Your task to perform on an android device: Search for "sony triple a" on costco.com, select the first entry, add it to the cart, then select checkout. Image 0: 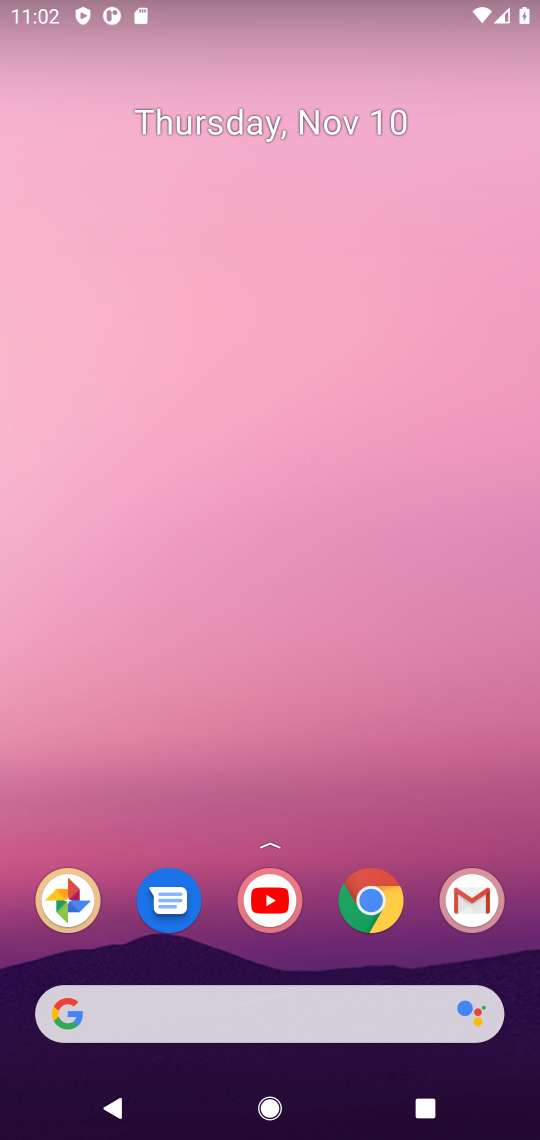
Step 0: click (375, 895)
Your task to perform on an android device: Search for "sony triple a" on costco.com, select the first entry, add it to the cart, then select checkout. Image 1: 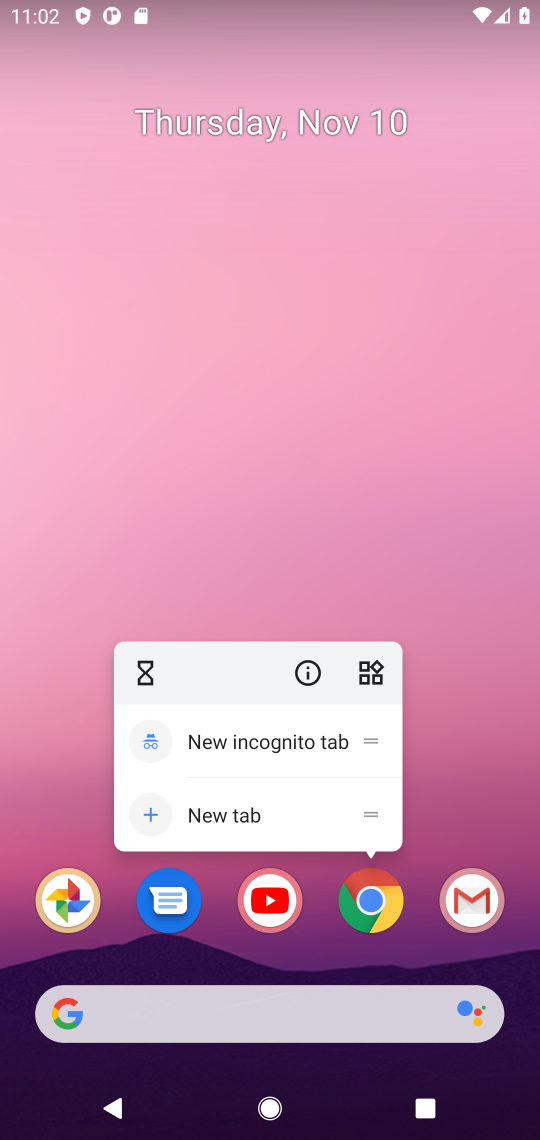
Step 1: click (368, 907)
Your task to perform on an android device: Search for "sony triple a" on costco.com, select the first entry, add it to the cart, then select checkout. Image 2: 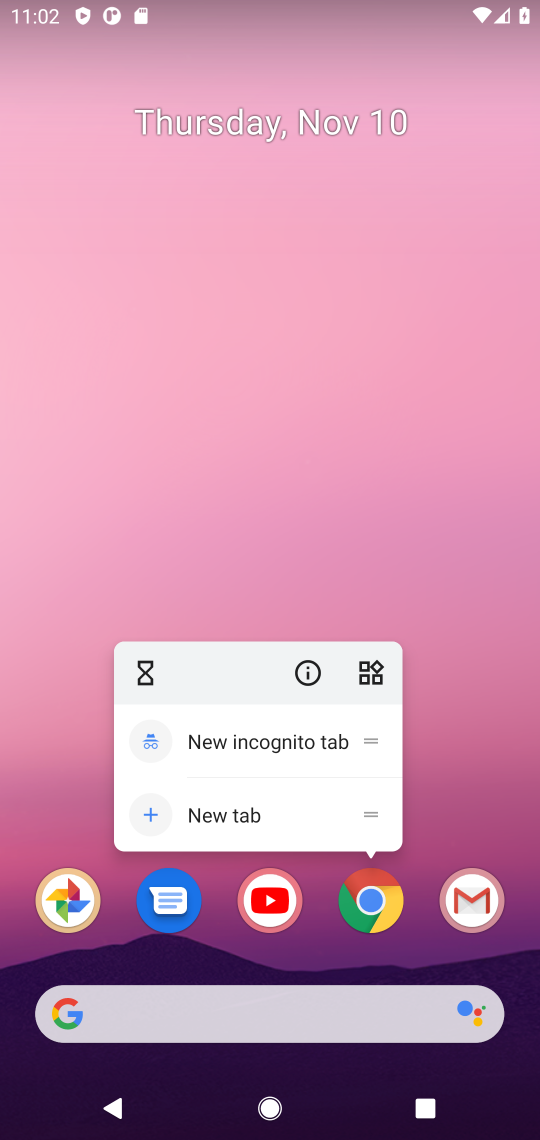
Step 2: click (368, 908)
Your task to perform on an android device: Search for "sony triple a" on costco.com, select the first entry, add it to the cart, then select checkout. Image 3: 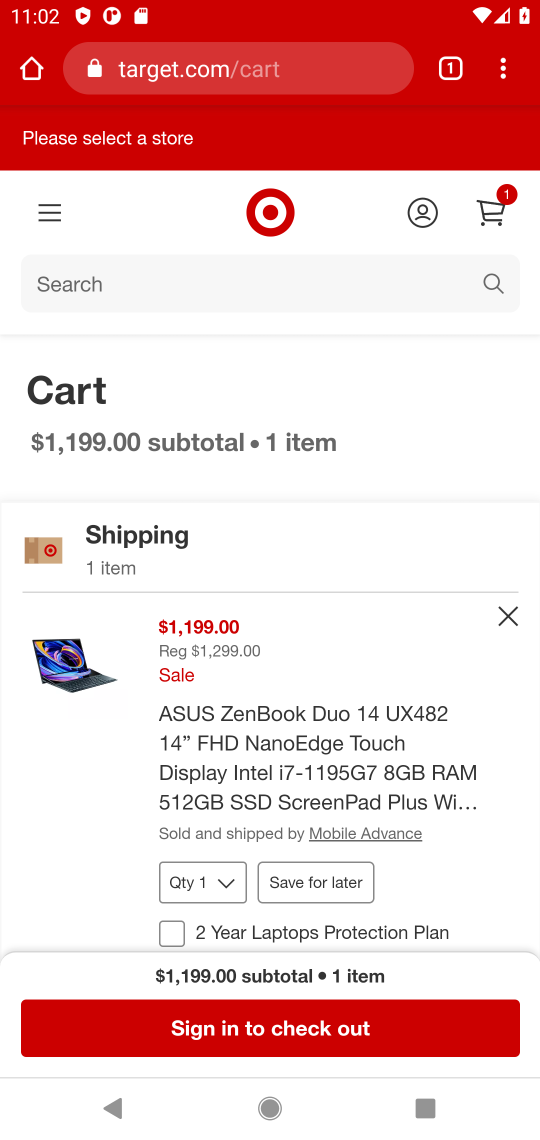
Step 3: click (273, 74)
Your task to perform on an android device: Search for "sony triple a" on costco.com, select the first entry, add it to the cart, then select checkout. Image 4: 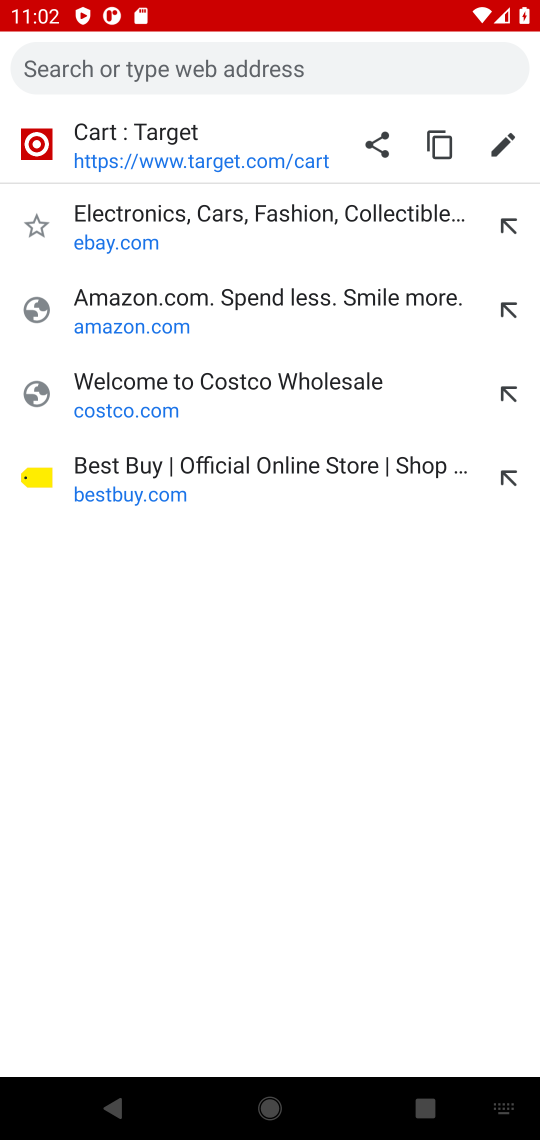
Step 4: click (120, 410)
Your task to perform on an android device: Search for "sony triple a" on costco.com, select the first entry, add it to the cart, then select checkout. Image 5: 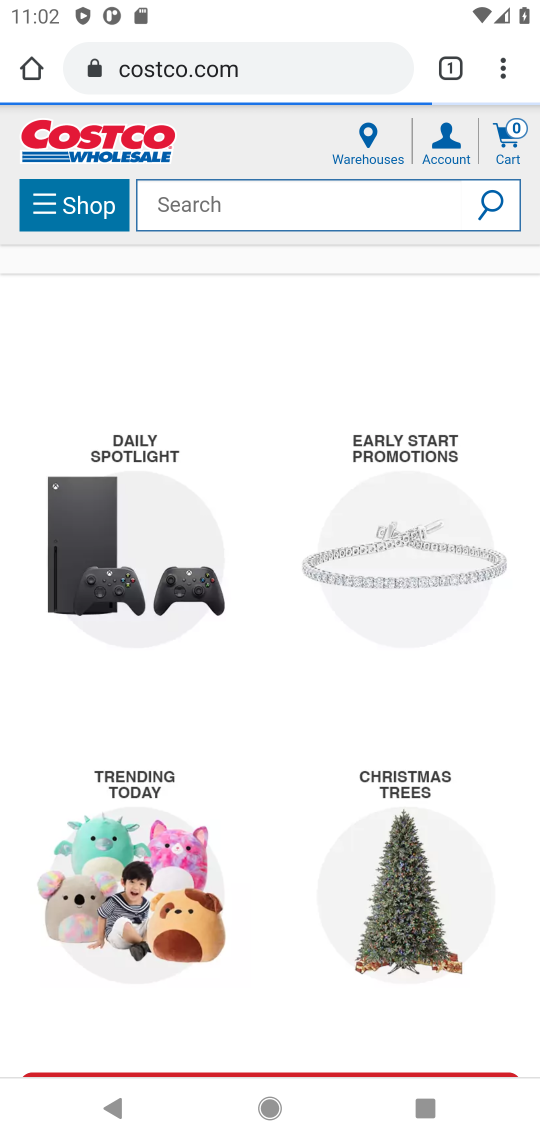
Step 5: click (188, 207)
Your task to perform on an android device: Search for "sony triple a" on costco.com, select the first entry, add it to the cart, then select checkout. Image 6: 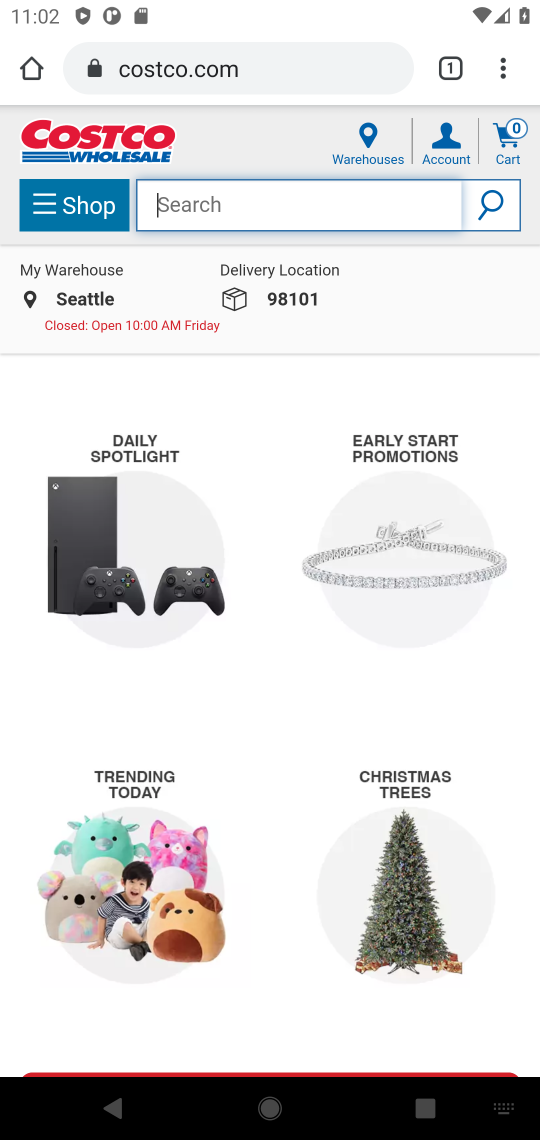
Step 6: type "sony triple a"
Your task to perform on an android device: Search for "sony triple a" on costco.com, select the first entry, add it to the cart, then select checkout. Image 7: 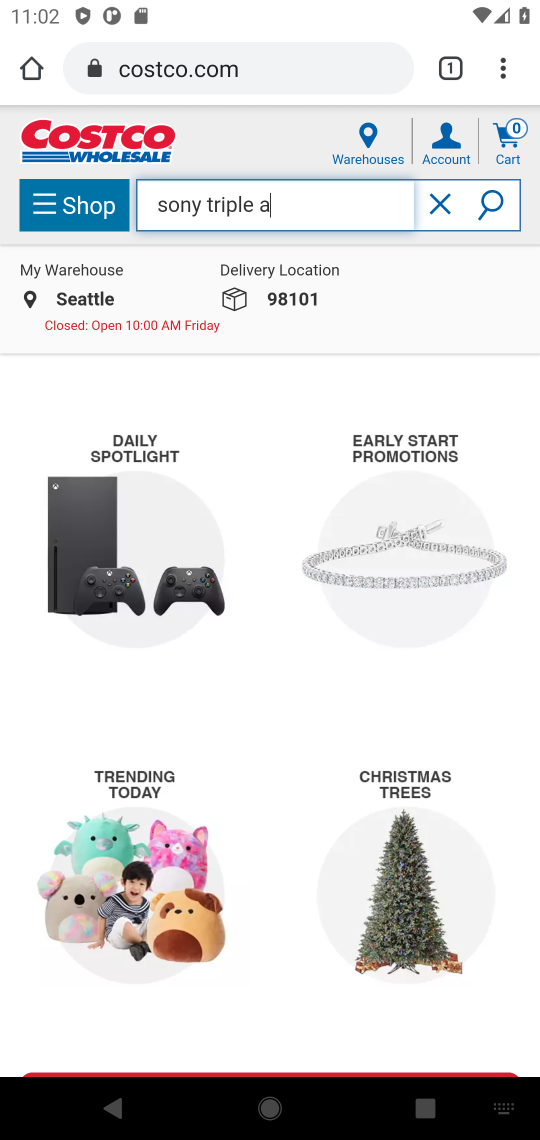
Step 7: press enter
Your task to perform on an android device: Search for "sony triple a" on costco.com, select the first entry, add it to the cart, then select checkout. Image 8: 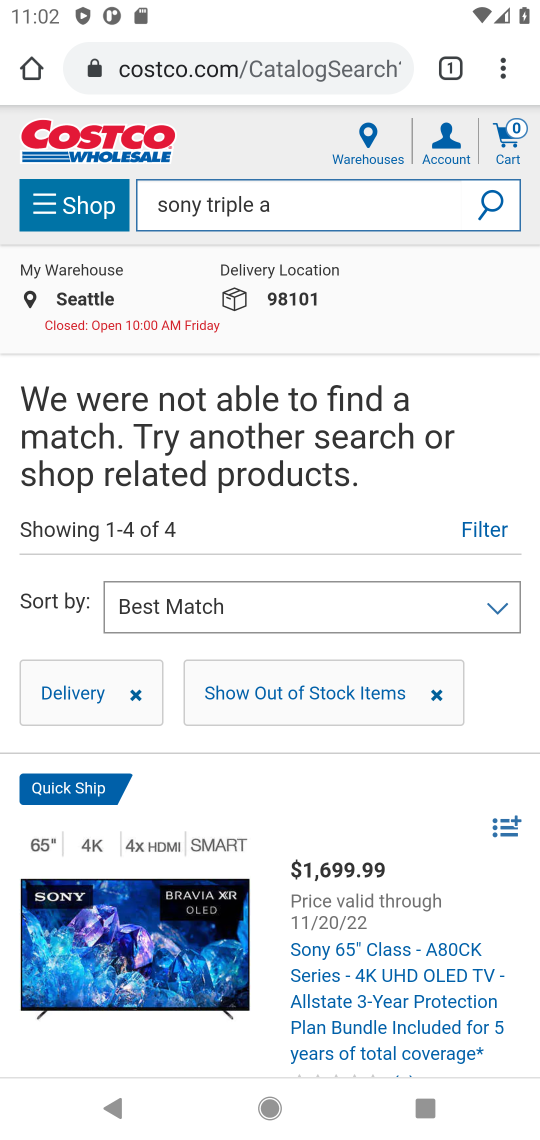
Step 8: task complete